Your task to perform on an android device: turn smart compose on in the gmail app Image 0: 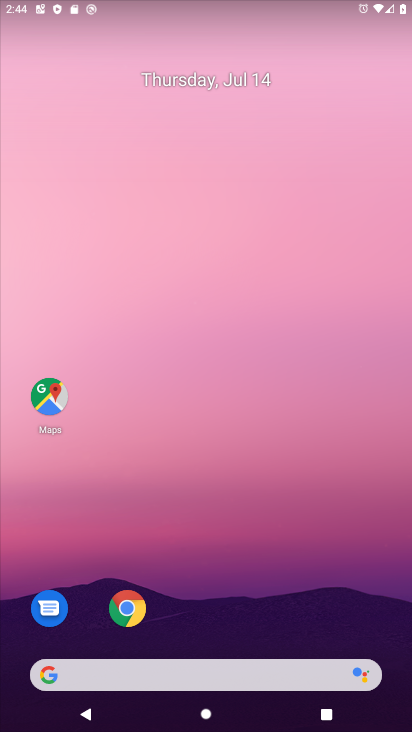
Step 0: drag from (246, 718) to (256, 106)
Your task to perform on an android device: turn smart compose on in the gmail app Image 1: 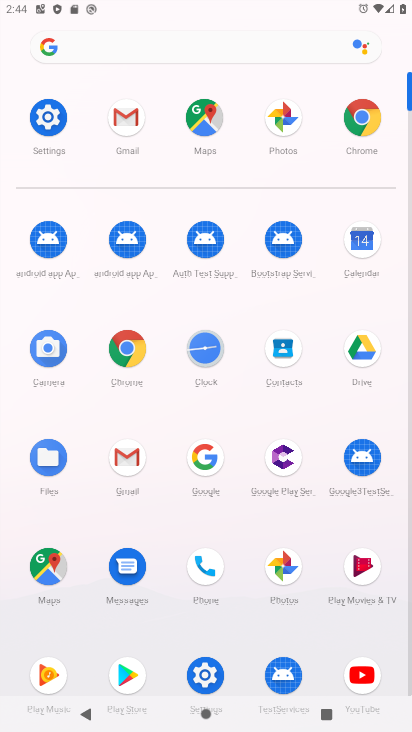
Step 1: click (127, 453)
Your task to perform on an android device: turn smart compose on in the gmail app Image 2: 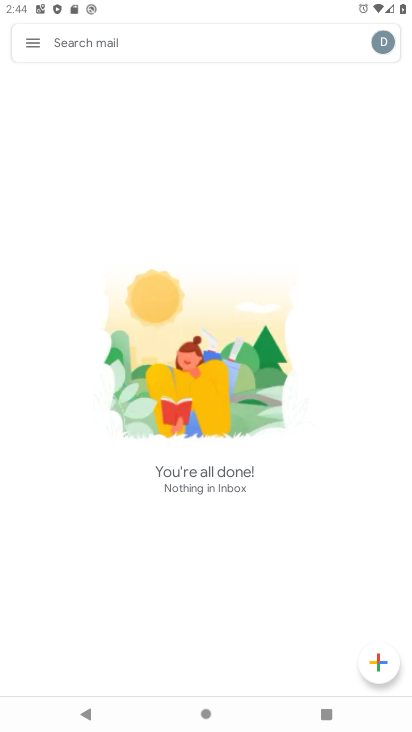
Step 2: click (28, 40)
Your task to perform on an android device: turn smart compose on in the gmail app Image 3: 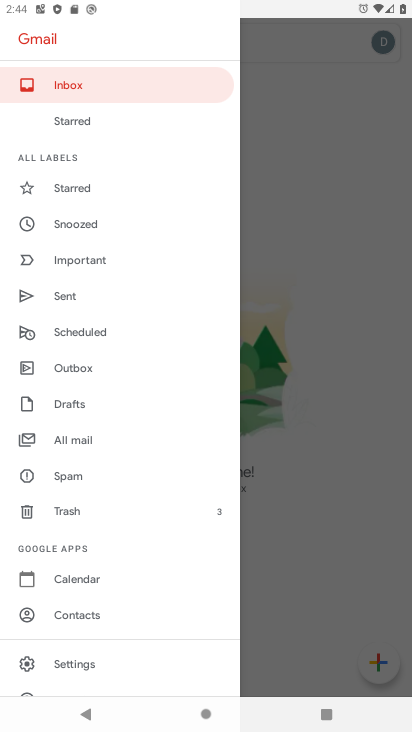
Step 3: click (63, 665)
Your task to perform on an android device: turn smart compose on in the gmail app Image 4: 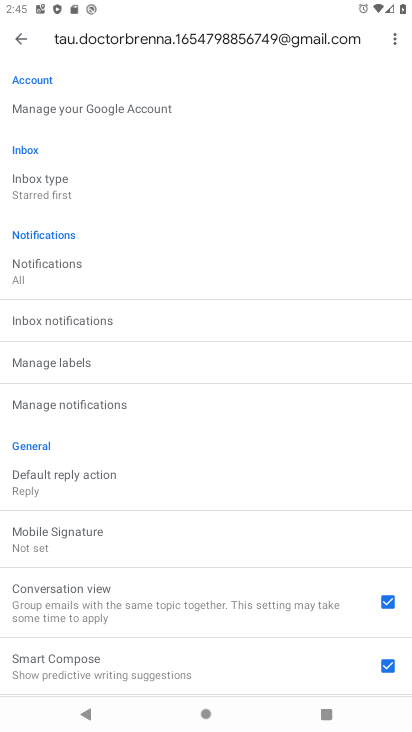
Step 4: task complete